Your task to perform on an android device: Go to Wikipedia Image 0: 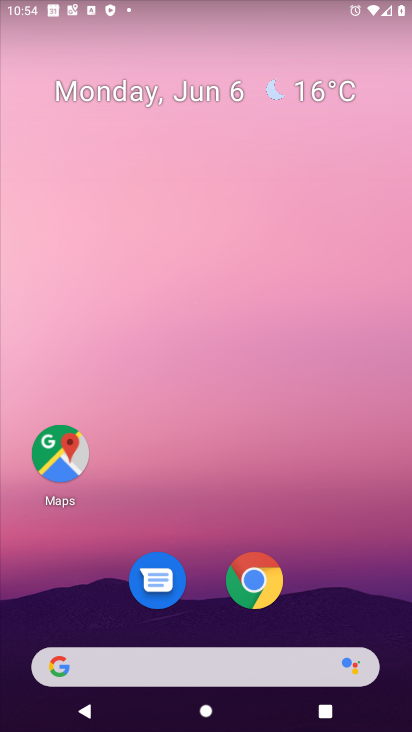
Step 0: drag from (354, 593) to (373, 2)
Your task to perform on an android device: Go to Wikipedia Image 1: 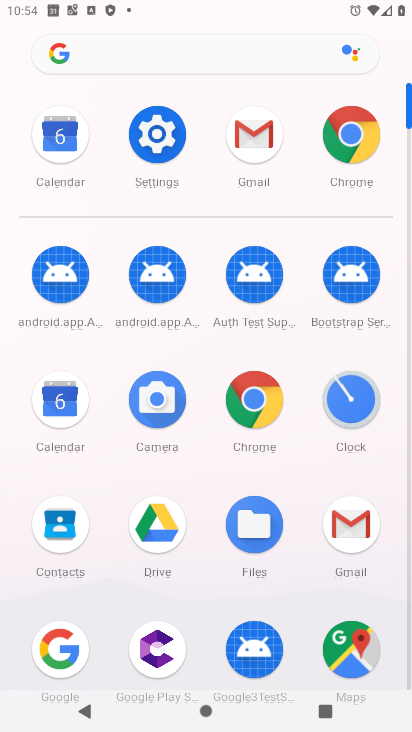
Step 1: click (372, 138)
Your task to perform on an android device: Go to Wikipedia Image 2: 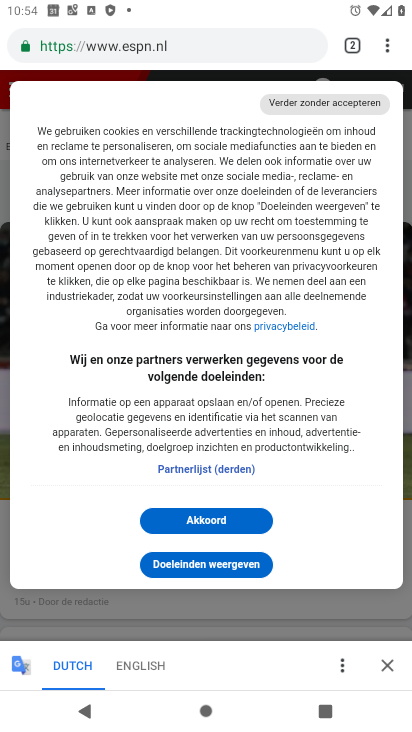
Step 2: click (188, 41)
Your task to perform on an android device: Go to Wikipedia Image 3: 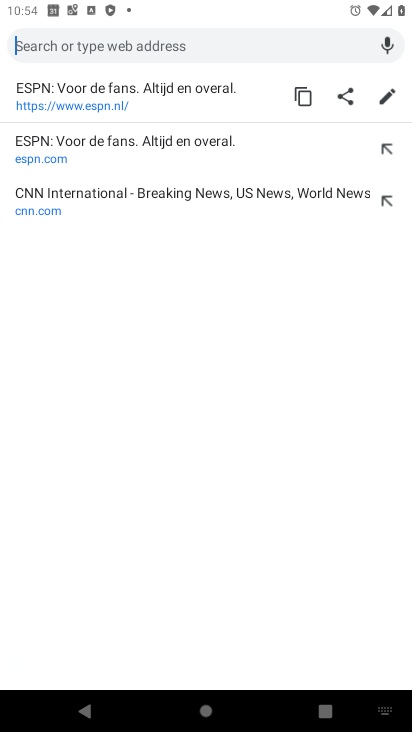
Step 3: type "wkipedia"
Your task to perform on an android device: Go to Wikipedia Image 4: 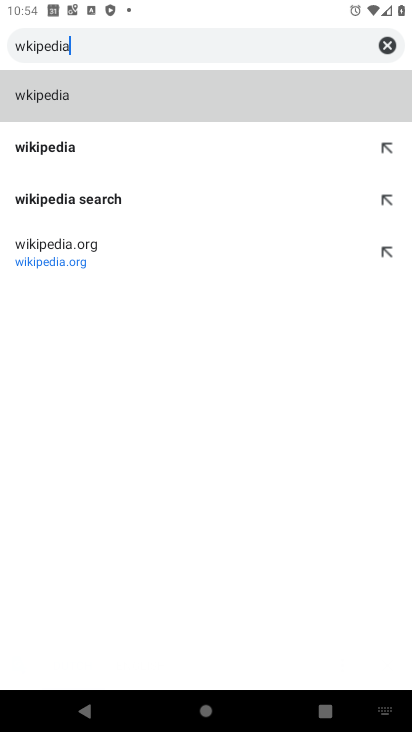
Step 4: click (78, 159)
Your task to perform on an android device: Go to Wikipedia Image 5: 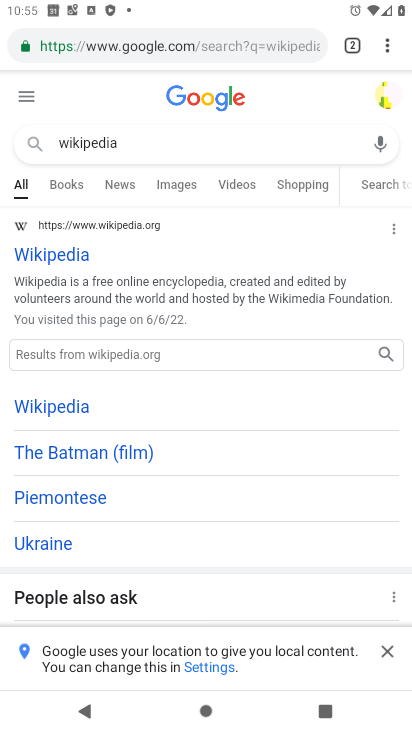
Step 5: click (64, 257)
Your task to perform on an android device: Go to Wikipedia Image 6: 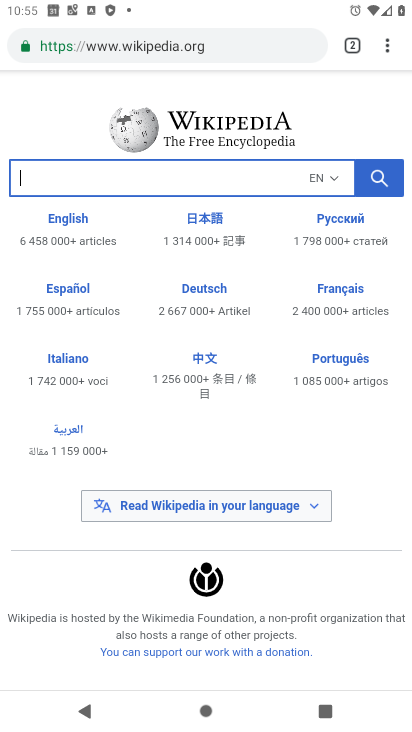
Step 6: task complete